Your task to perform on an android device: find photos in the google photos app Image 0: 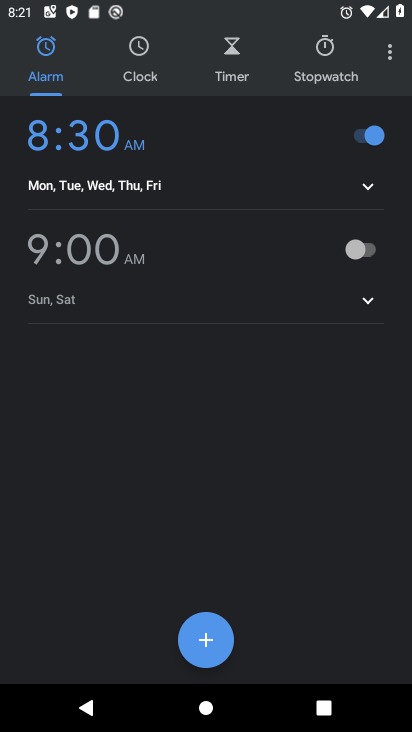
Step 0: press home button
Your task to perform on an android device: find photos in the google photos app Image 1: 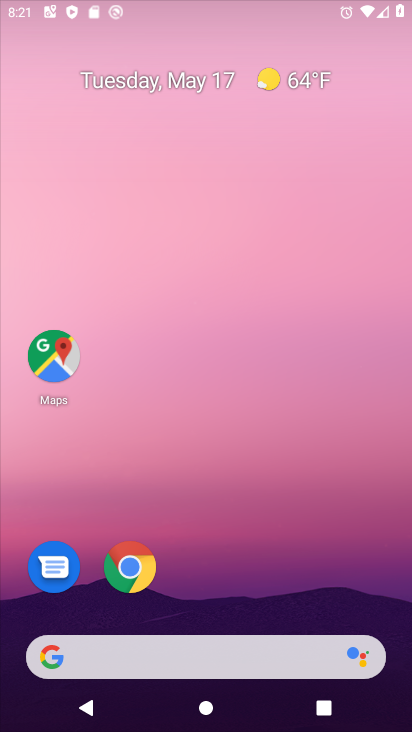
Step 1: drag from (306, 573) to (230, 0)
Your task to perform on an android device: find photos in the google photos app Image 2: 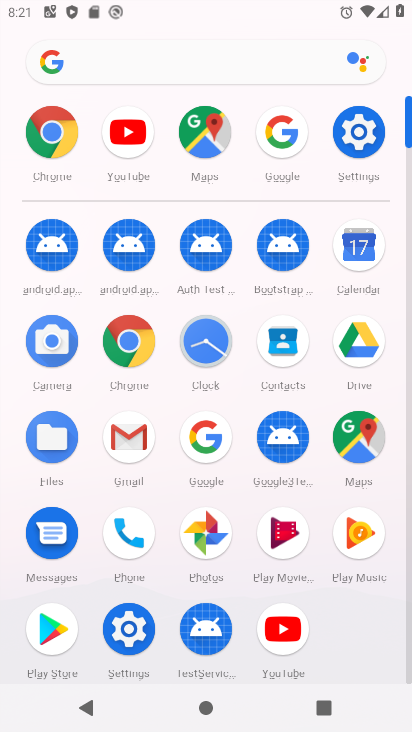
Step 2: click (200, 535)
Your task to perform on an android device: find photos in the google photos app Image 3: 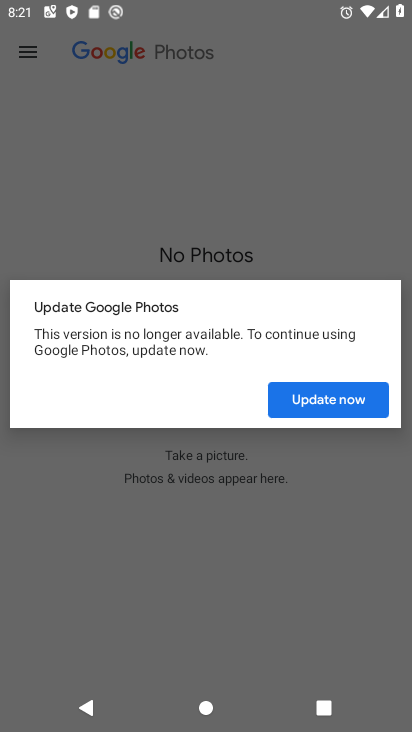
Step 3: click (351, 391)
Your task to perform on an android device: find photos in the google photos app Image 4: 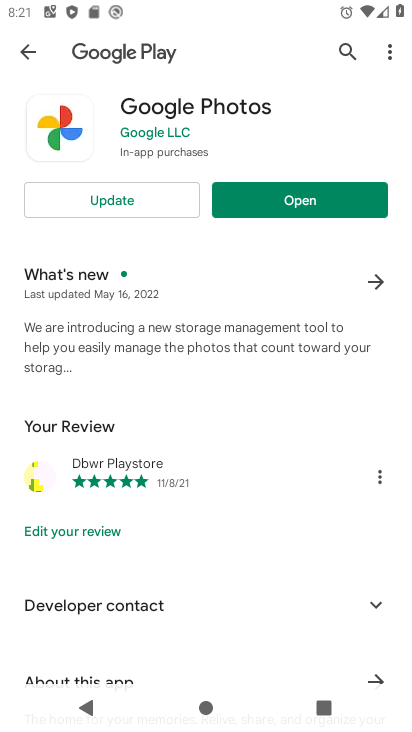
Step 4: click (81, 188)
Your task to perform on an android device: find photos in the google photos app Image 5: 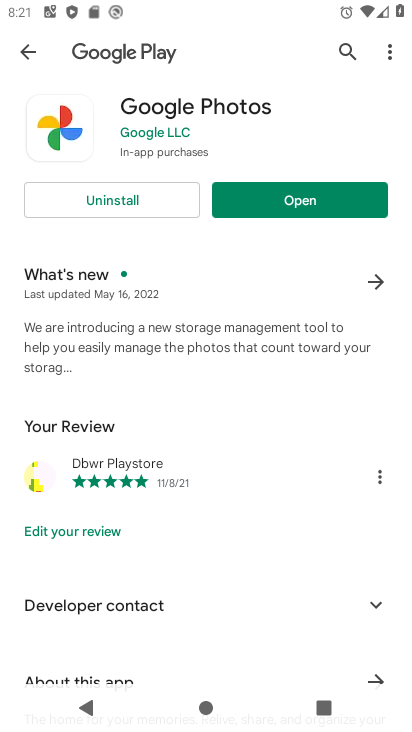
Step 5: click (335, 204)
Your task to perform on an android device: find photos in the google photos app Image 6: 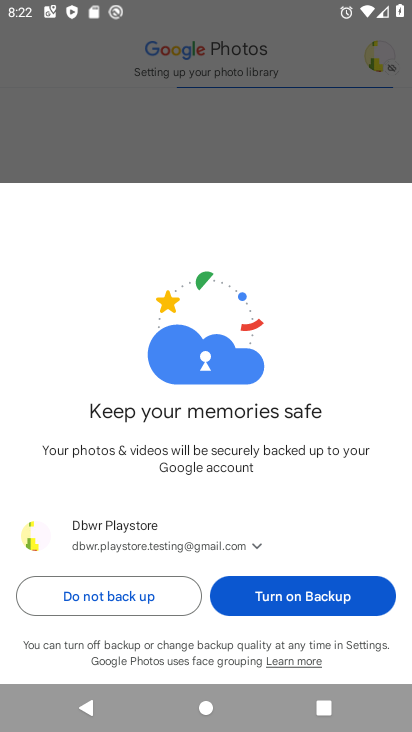
Step 6: click (302, 602)
Your task to perform on an android device: find photos in the google photos app Image 7: 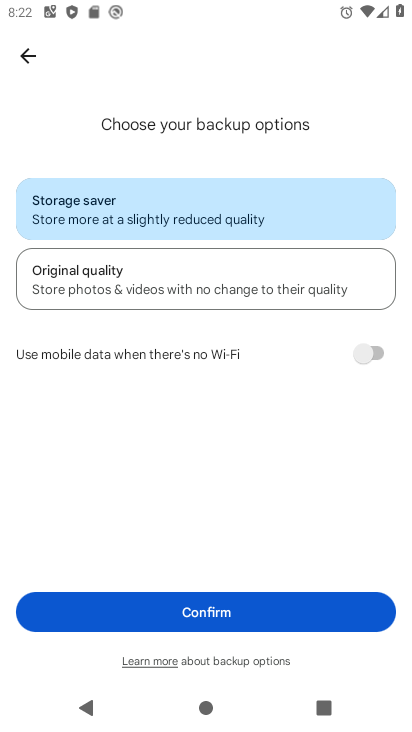
Step 7: click (292, 605)
Your task to perform on an android device: find photos in the google photos app Image 8: 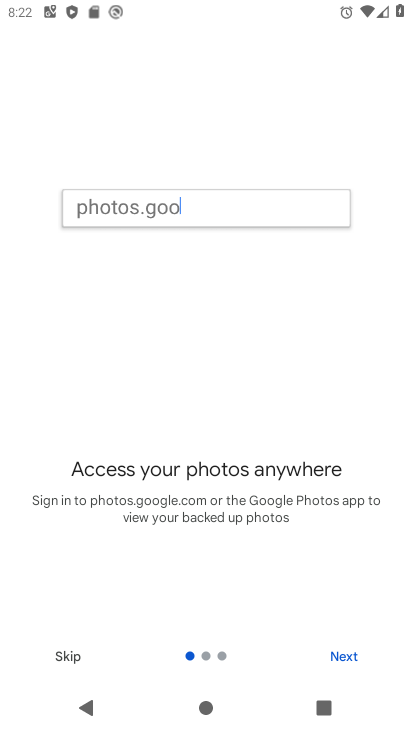
Step 8: click (351, 661)
Your task to perform on an android device: find photos in the google photos app Image 9: 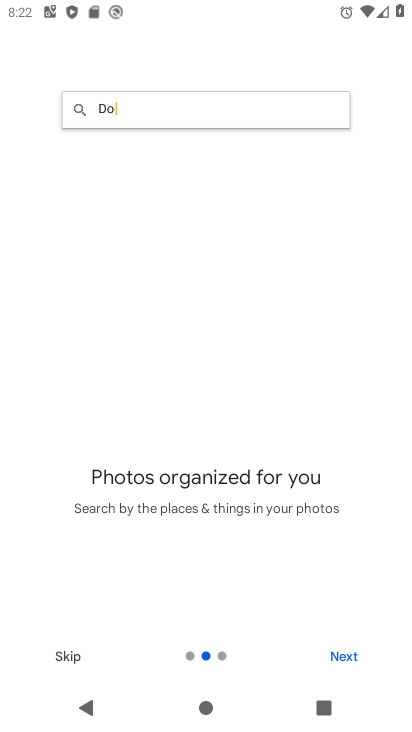
Step 9: click (351, 661)
Your task to perform on an android device: find photos in the google photos app Image 10: 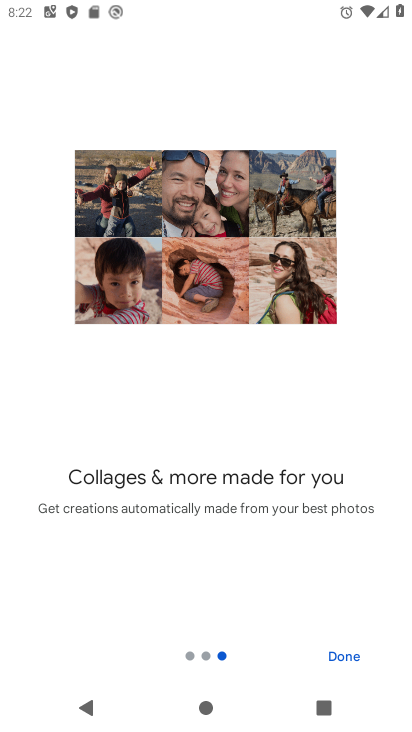
Step 10: click (351, 661)
Your task to perform on an android device: find photos in the google photos app Image 11: 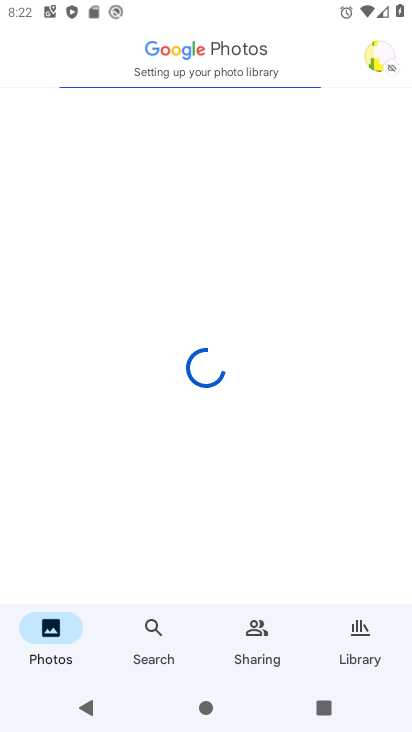
Step 11: click (351, 661)
Your task to perform on an android device: find photos in the google photos app Image 12: 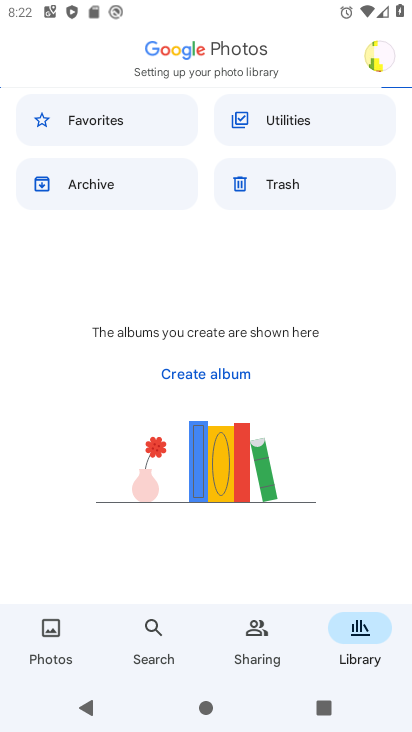
Step 12: task complete